Your task to perform on an android device: Go to Yahoo.com Image 0: 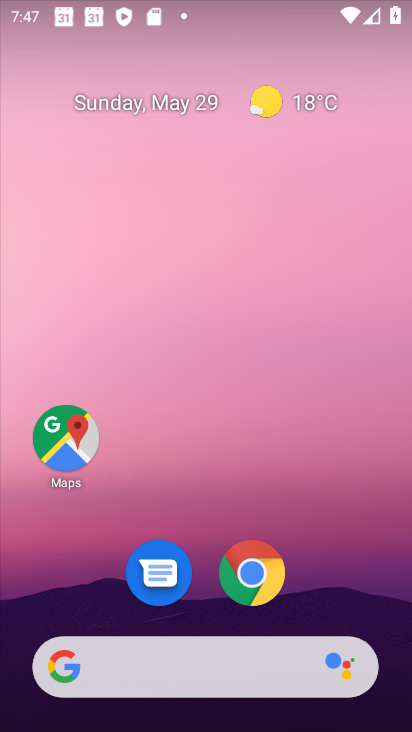
Step 0: click (264, 585)
Your task to perform on an android device: Go to Yahoo.com Image 1: 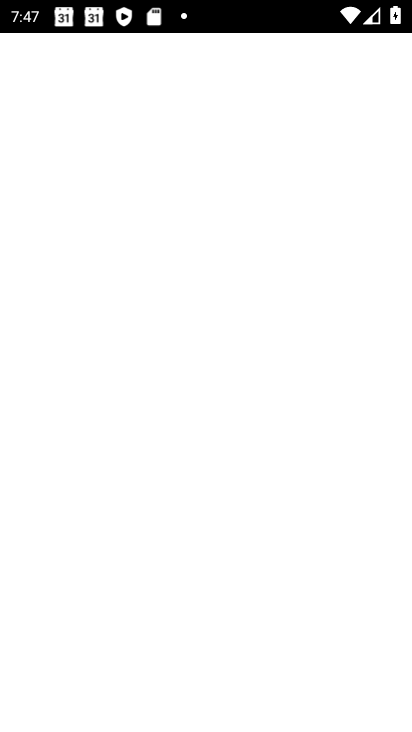
Step 1: click (264, 585)
Your task to perform on an android device: Go to Yahoo.com Image 2: 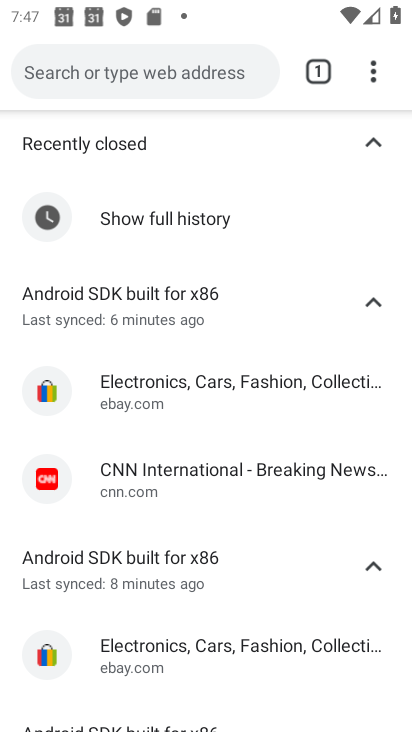
Step 2: click (403, 85)
Your task to perform on an android device: Go to Yahoo.com Image 3: 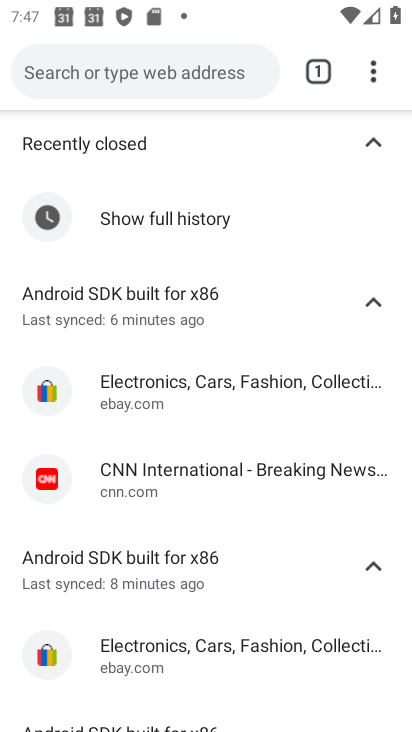
Step 3: drag from (401, 81) to (157, 159)
Your task to perform on an android device: Go to Yahoo.com Image 4: 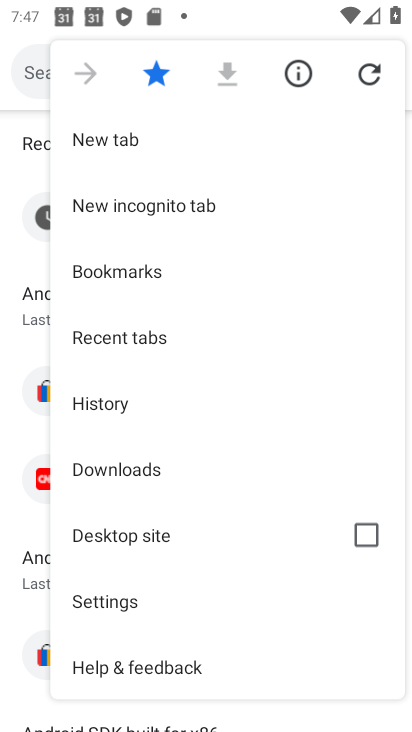
Step 4: click (159, 152)
Your task to perform on an android device: Go to Yahoo.com Image 5: 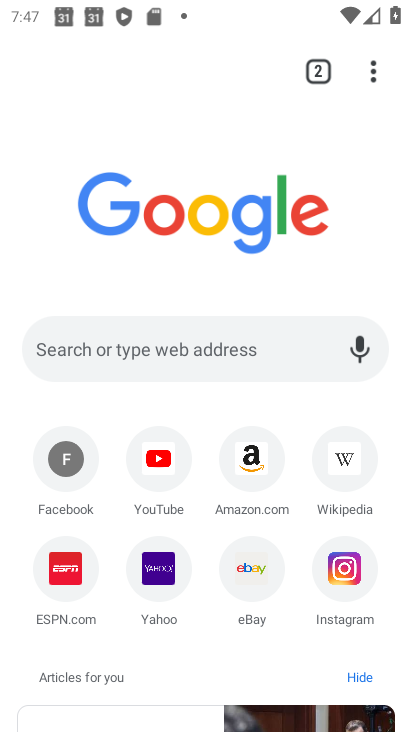
Step 5: click (169, 587)
Your task to perform on an android device: Go to Yahoo.com Image 6: 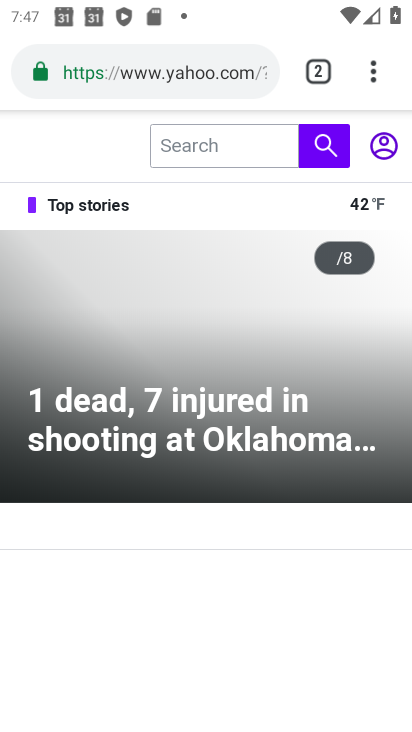
Step 6: task complete